Your task to perform on an android device: Open the web browser Image 0: 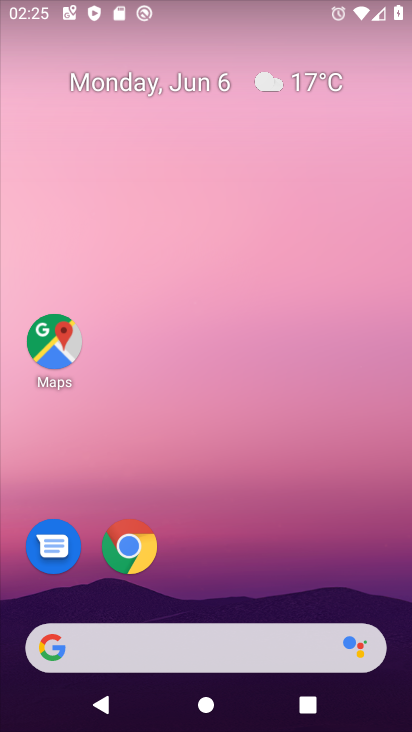
Step 0: click (132, 536)
Your task to perform on an android device: Open the web browser Image 1: 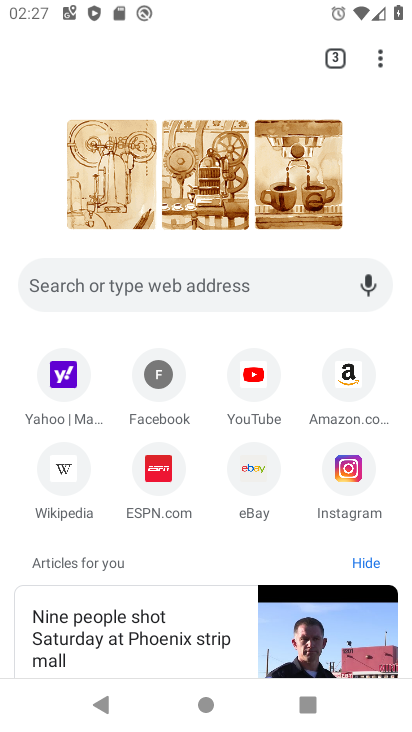
Step 1: task complete